Your task to perform on an android device: open the mobile data screen to see how much data has been used Image 0: 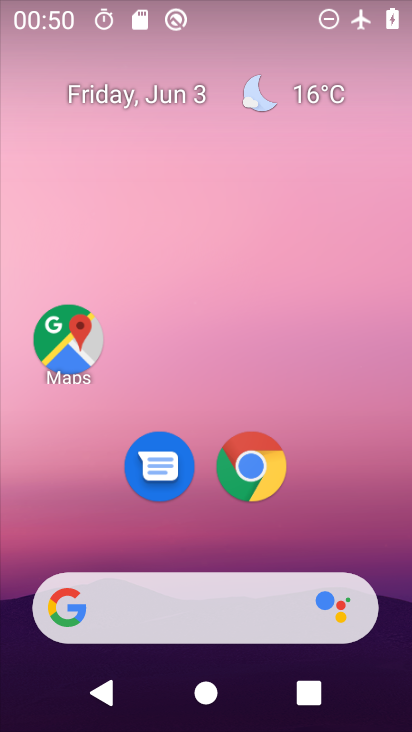
Step 0: drag from (214, 547) to (203, 140)
Your task to perform on an android device: open the mobile data screen to see how much data has been used Image 1: 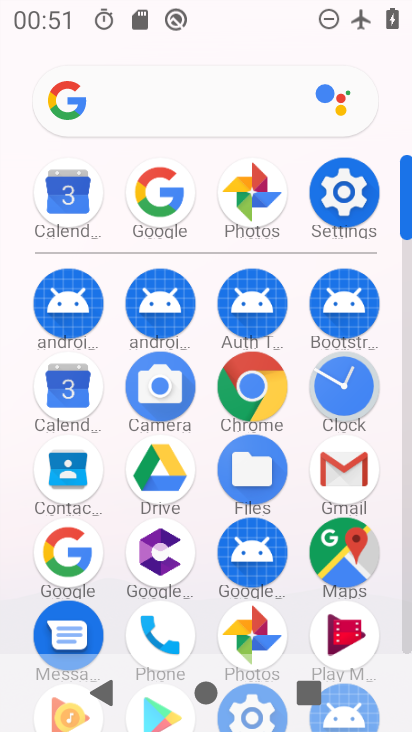
Step 1: click (330, 191)
Your task to perform on an android device: open the mobile data screen to see how much data has been used Image 2: 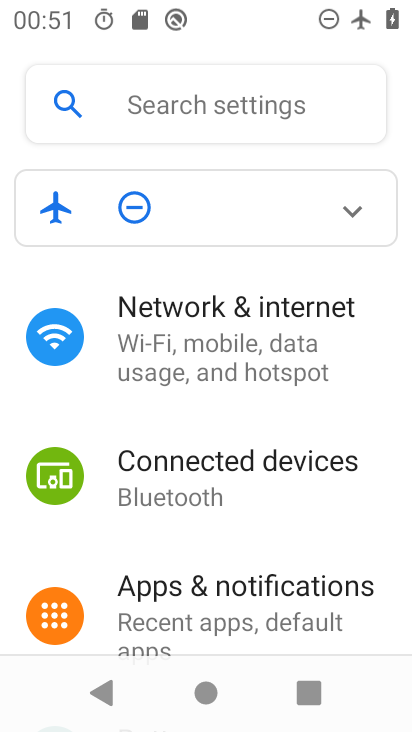
Step 2: drag from (204, 563) to (212, 392)
Your task to perform on an android device: open the mobile data screen to see how much data has been used Image 3: 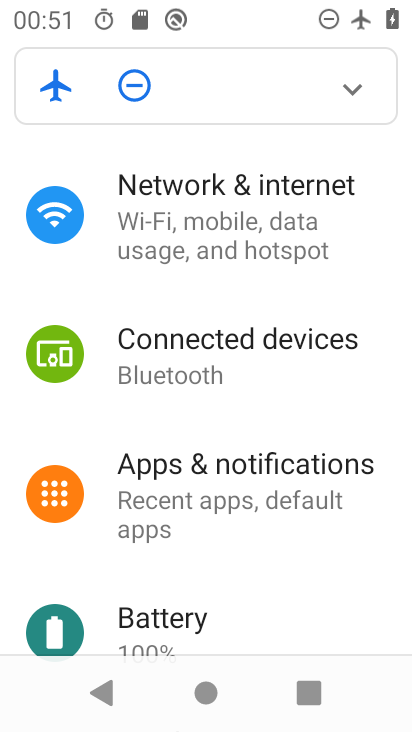
Step 3: click (234, 257)
Your task to perform on an android device: open the mobile data screen to see how much data has been used Image 4: 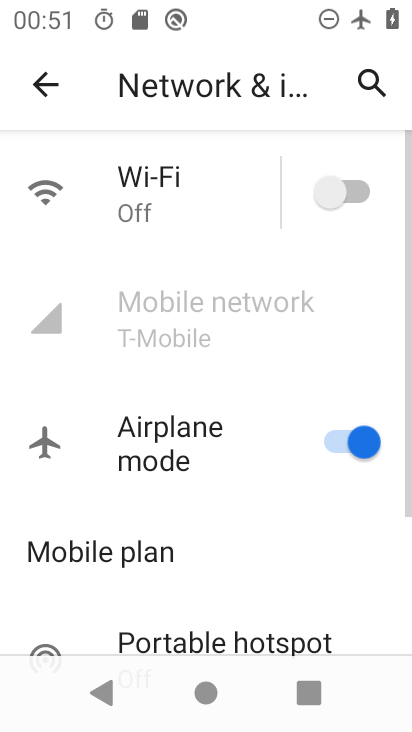
Step 4: click (186, 366)
Your task to perform on an android device: open the mobile data screen to see how much data has been used Image 5: 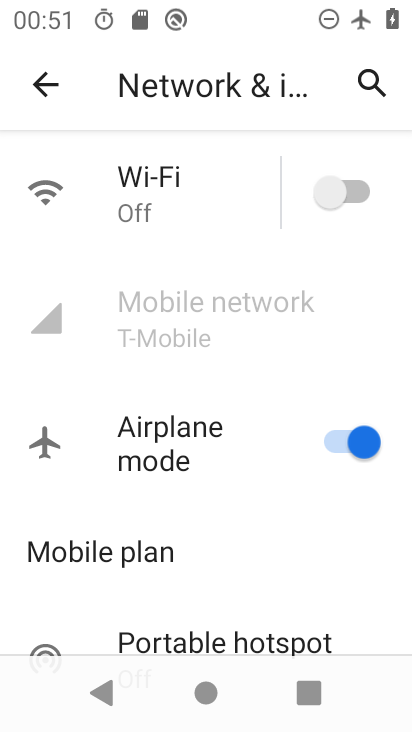
Step 5: click (298, 299)
Your task to perform on an android device: open the mobile data screen to see how much data has been used Image 6: 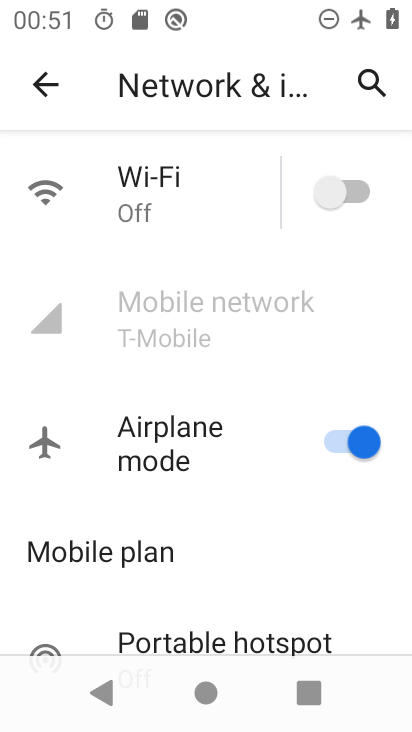
Step 6: task complete